Your task to perform on an android device: Go to Yahoo.com Image 0: 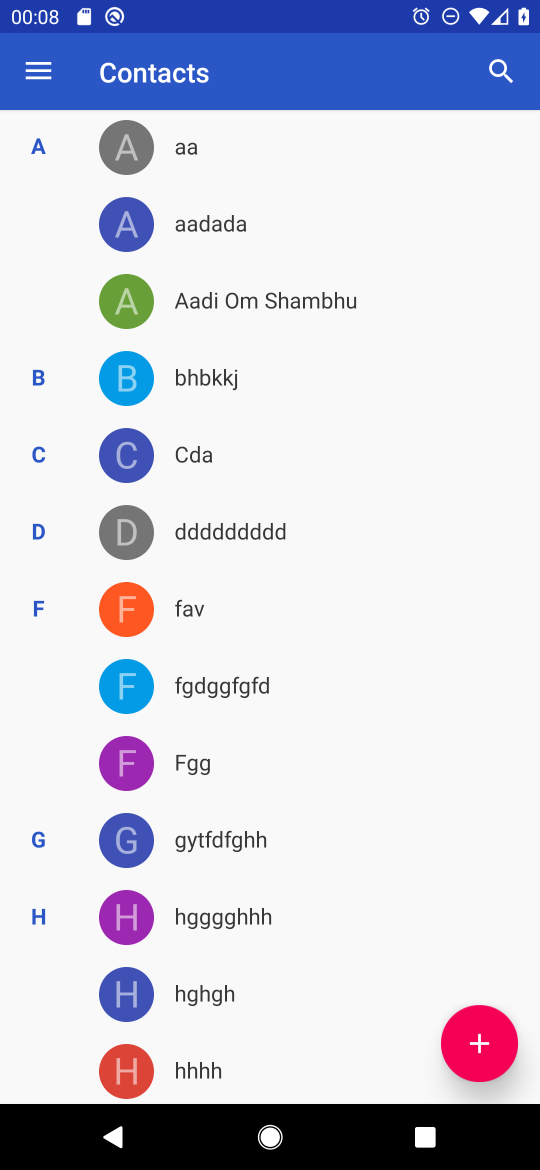
Step 0: press home button
Your task to perform on an android device: Go to Yahoo.com Image 1: 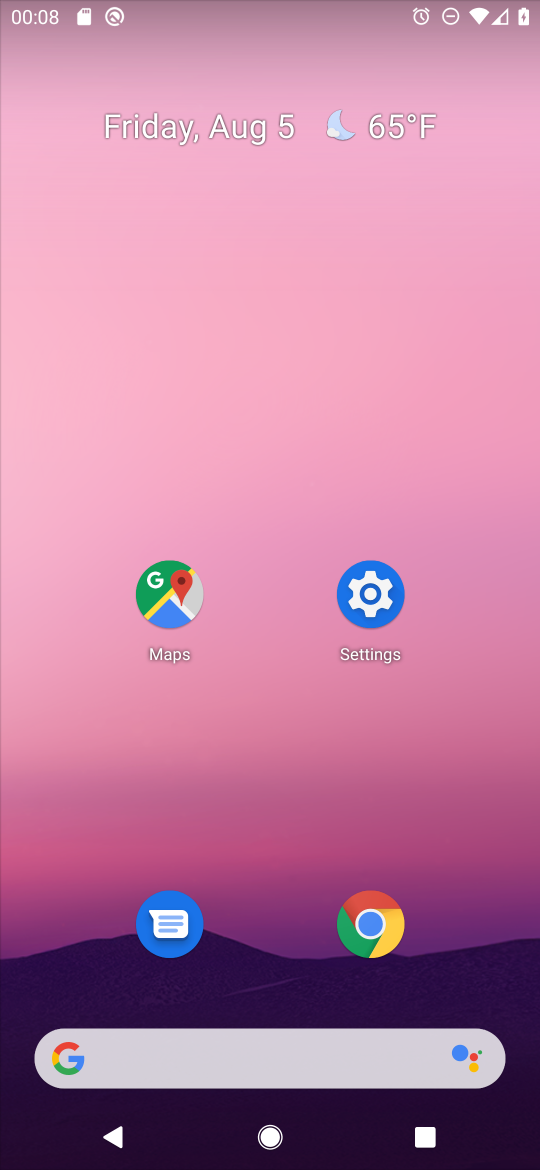
Step 1: click (389, 930)
Your task to perform on an android device: Go to Yahoo.com Image 2: 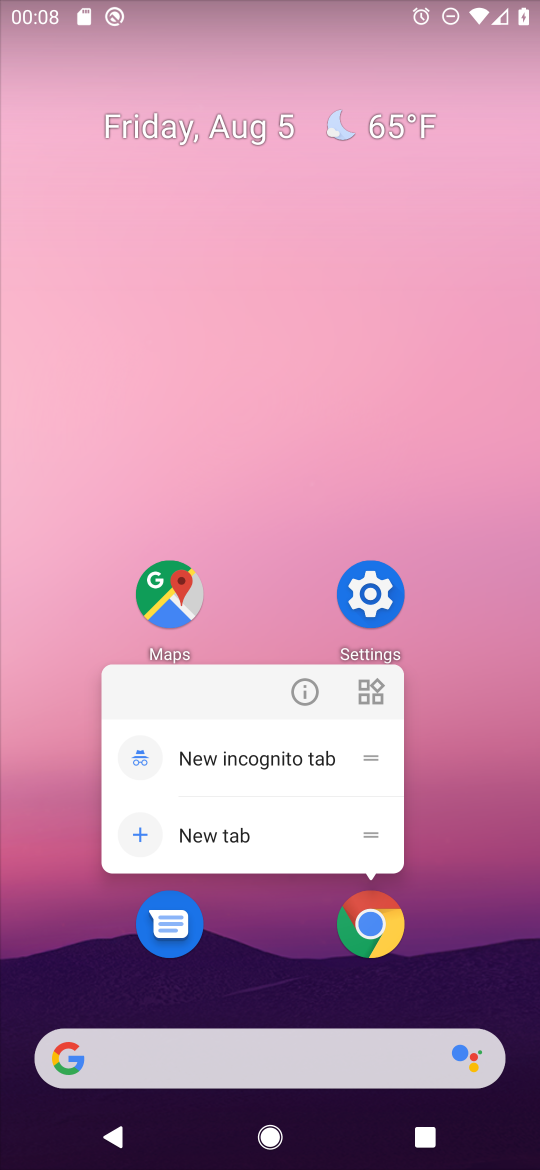
Step 2: click (368, 912)
Your task to perform on an android device: Go to Yahoo.com Image 3: 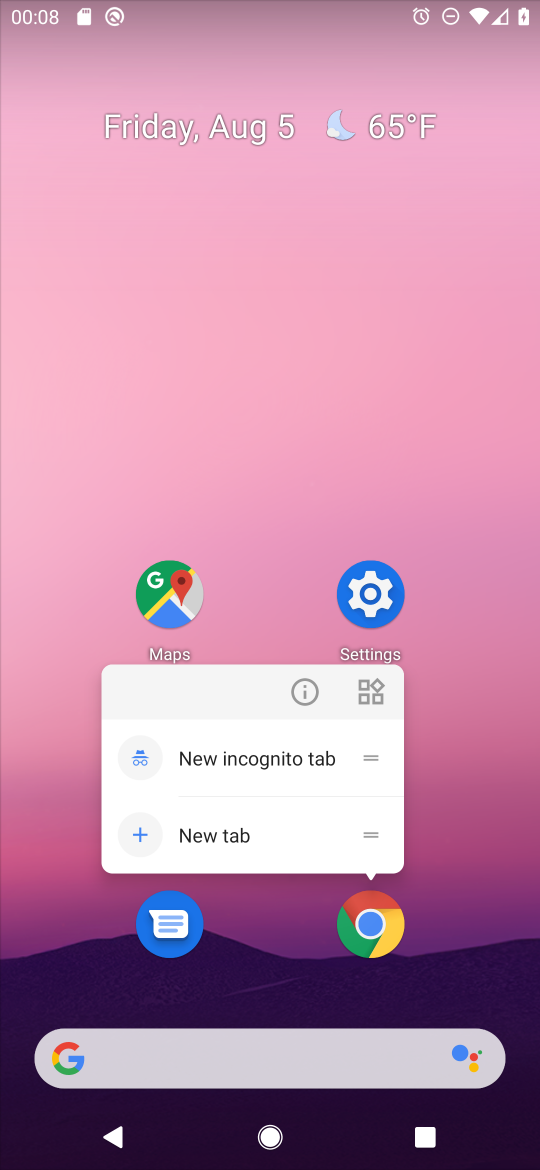
Step 3: click (375, 940)
Your task to perform on an android device: Go to Yahoo.com Image 4: 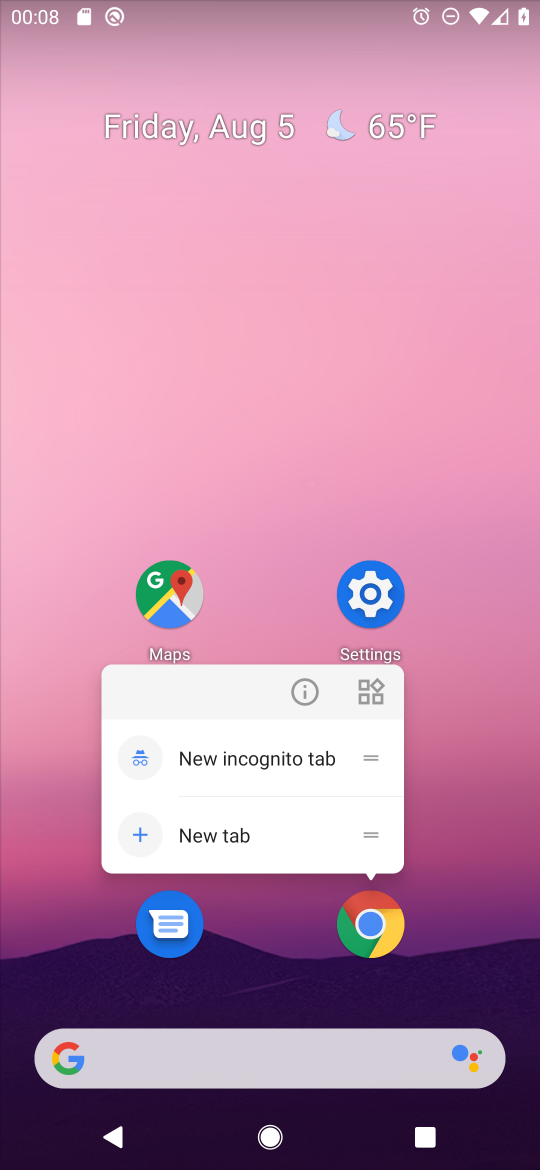
Step 4: click (378, 923)
Your task to perform on an android device: Go to Yahoo.com Image 5: 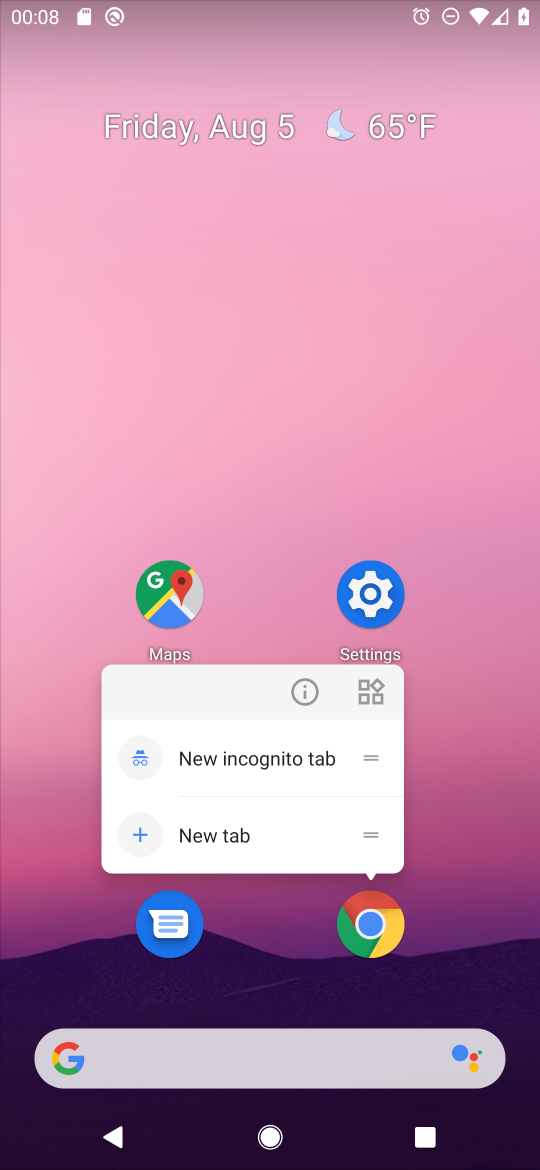
Step 5: click (378, 923)
Your task to perform on an android device: Go to Yahoo.com Image 6: 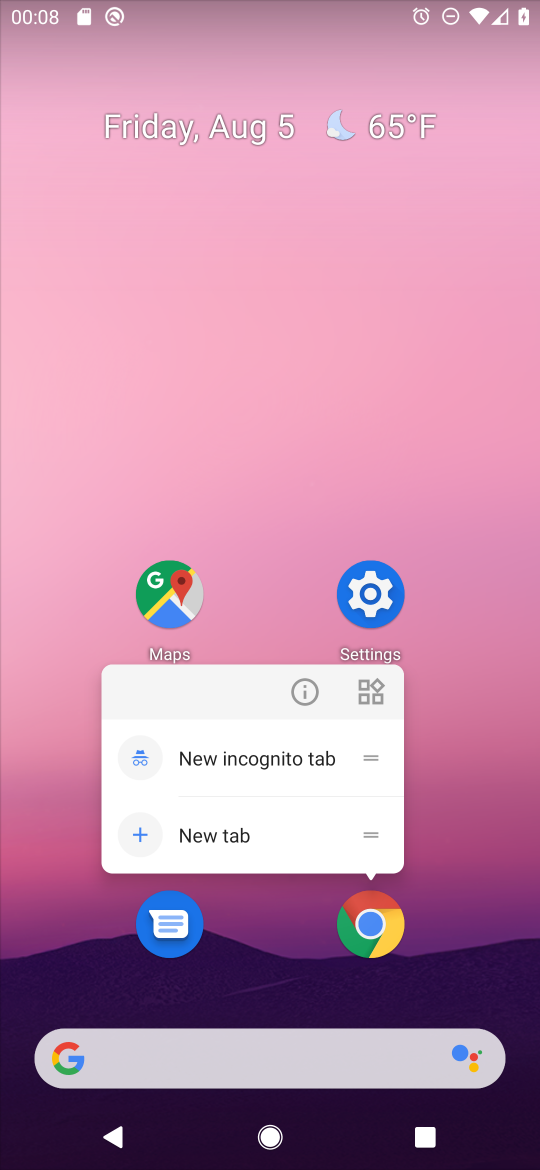
Step 6: click (378, 920)
Your task to perform on an android device: Go to Yahoo.com Image 7: 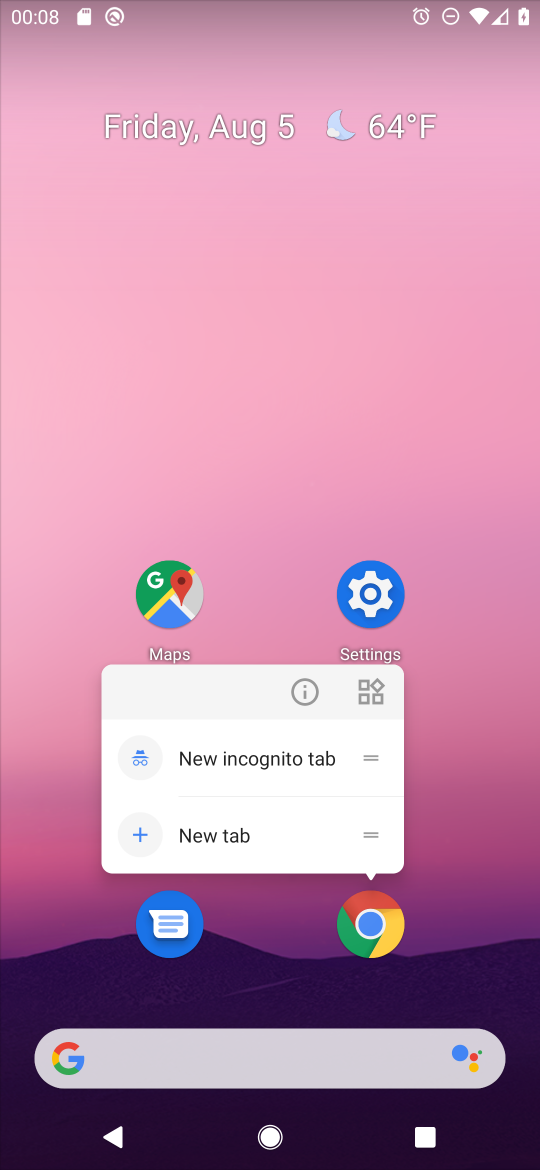
Step 7: click (375, 924)
Your task to perform on an android device: Go to Yahoo.com Image 8: 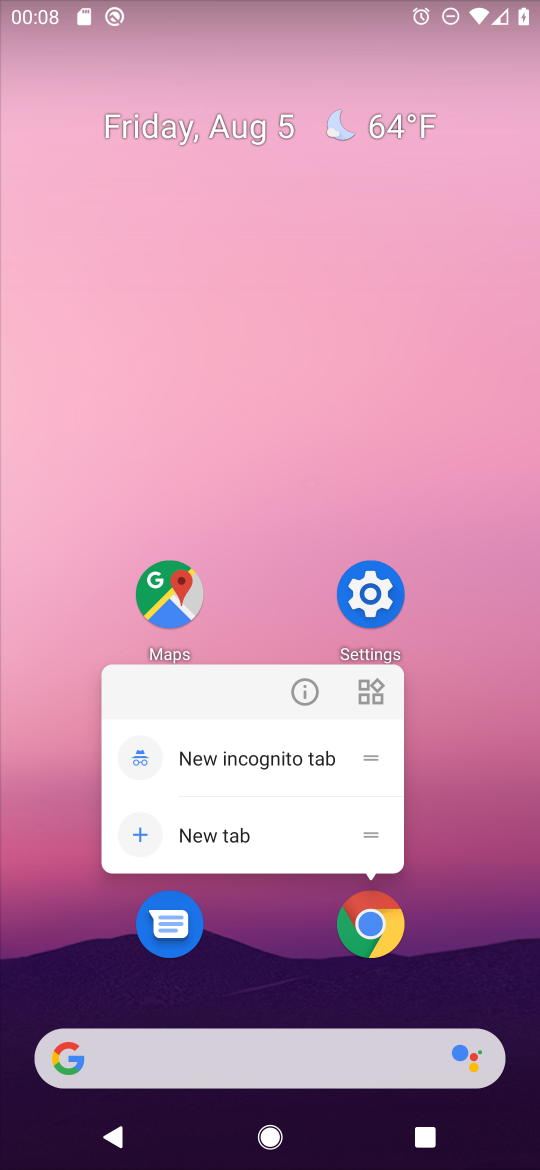
Step 8: click (379, 927)
Your task to perform on an android device: Go to Yahoo.com Image 9: 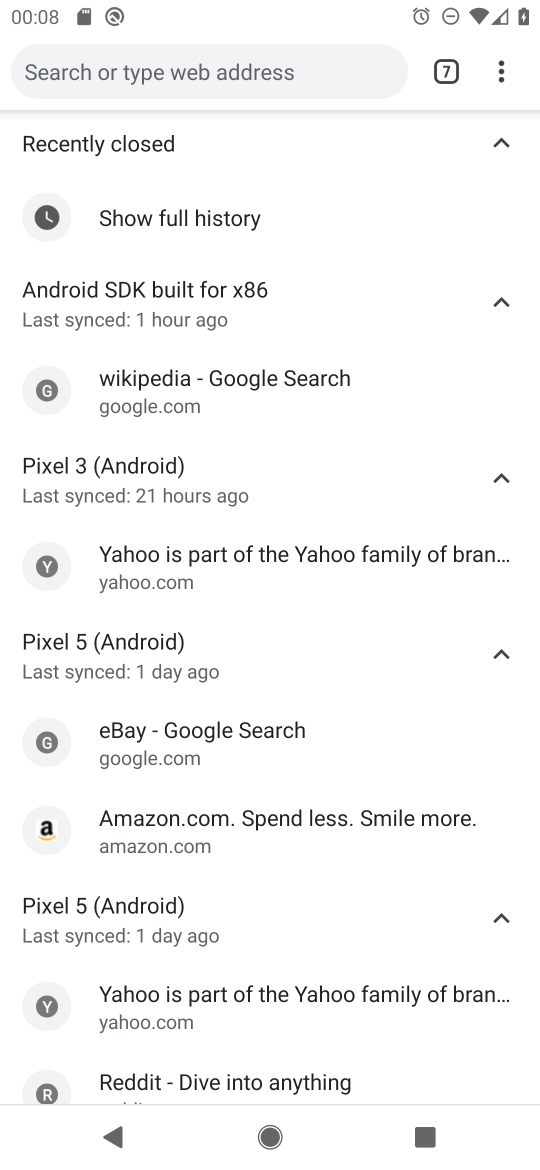
Step 9: drag from (506, 59) to (321, 144)
Your task to perform on an android device: Go to Yahoo.com Image 10: 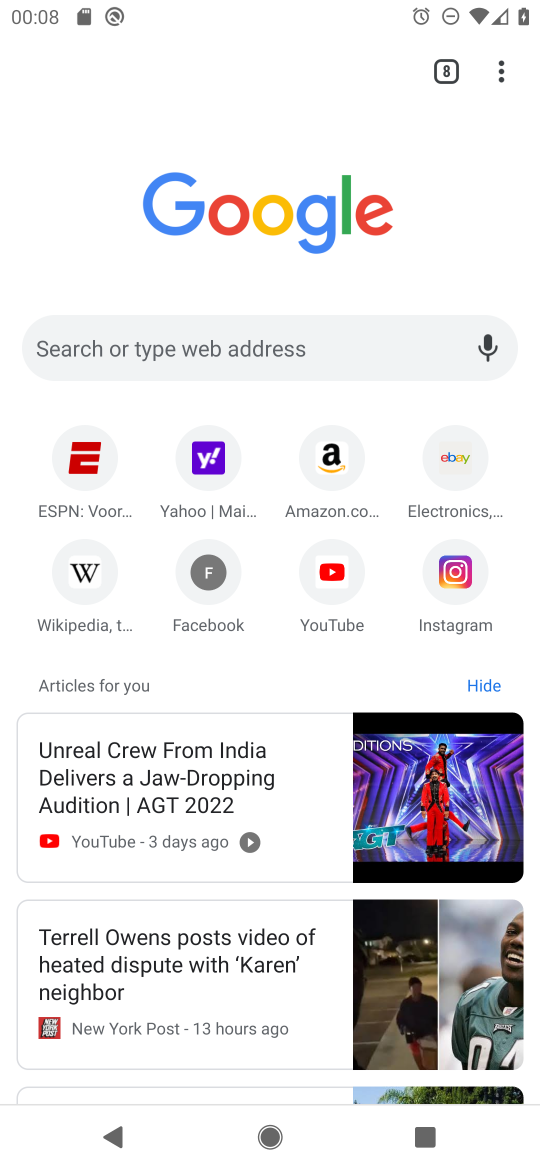
Step 10: click (203, 478)
Your task to perform on an android device: Go to Yahoo.com Image 11: 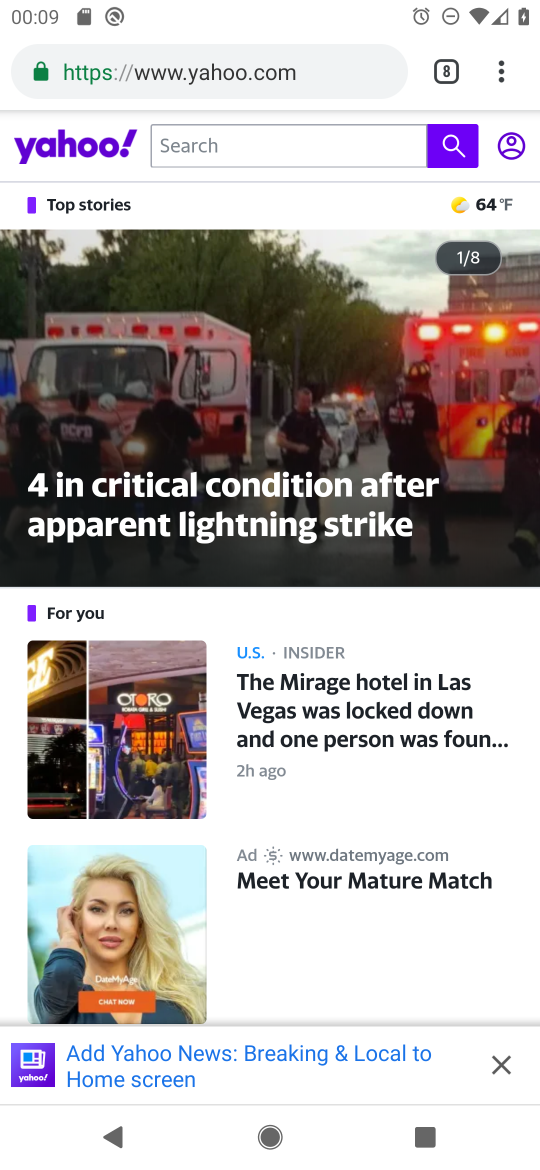
Step 11: task complete